Your task to perform on an android device: turn on improve location accuracy Image 0: 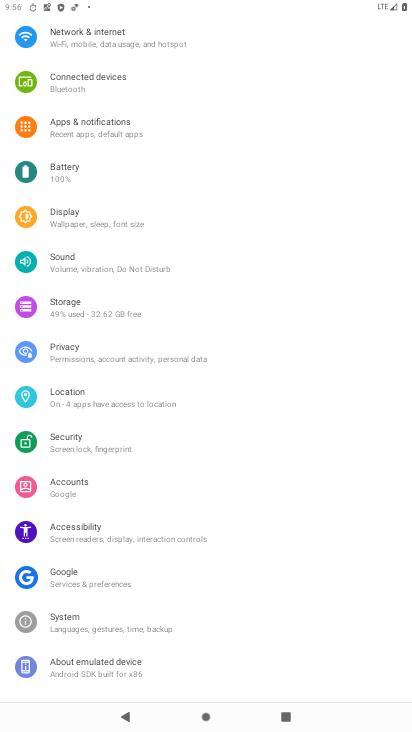
Step 0: press home button
Your task to perform on an android device: turn on improve location accuracy Image 1: 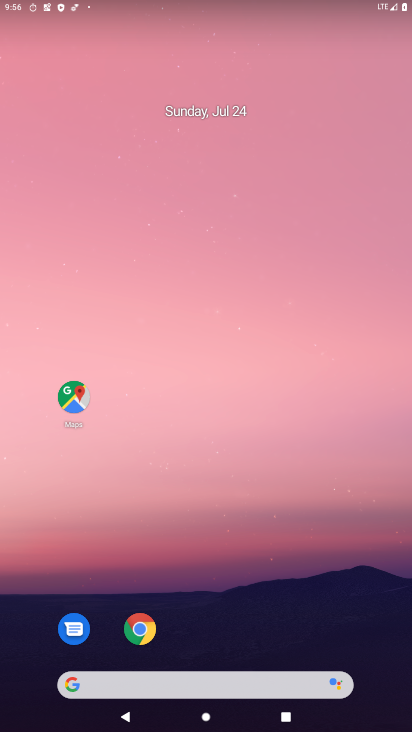
Step 1: drag from (217, 630) to (216, 65)
Your task to perform on an android device: turn on improve location accuracy Image 2: 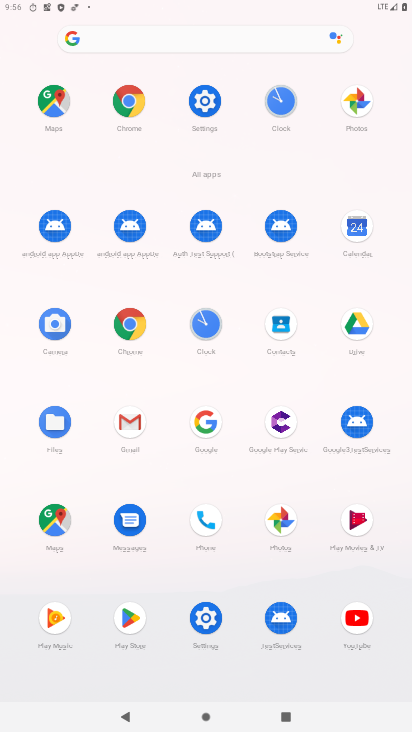
Step 2: click (207, 101)
Your task to perform on an android device: turn on improve location accuracy Image 3: 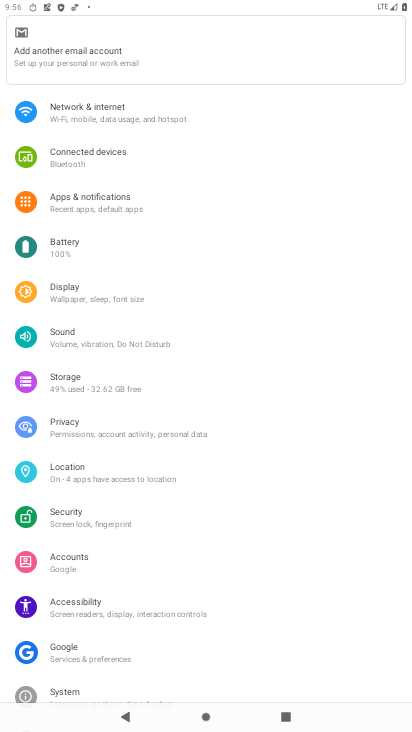
Step 3: click (74, 464)
Your task to perform on an android device: turn on improve location accuracy Image 4: 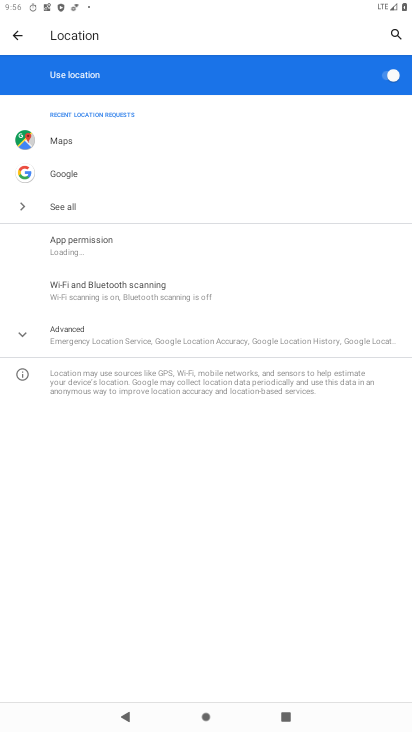
Step 4: click (21, 337)
Your task to perform on an android device: turn on improve location accuracy Image 5: 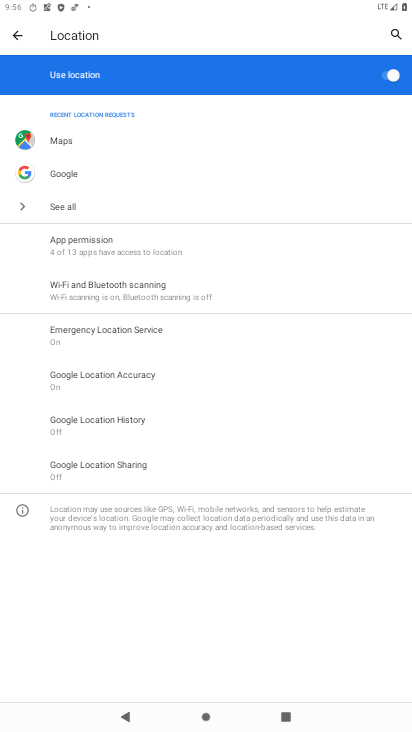
Step 5: task complete